Your task to perform on an android device: turn off improve location accuracy Image 0: 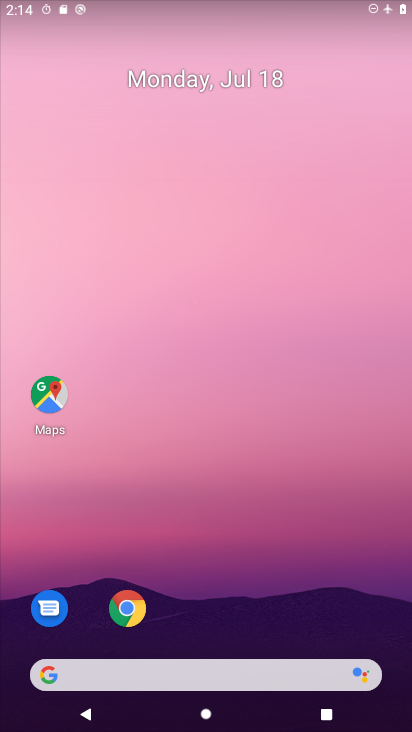
Step 0: drag from (222, 510) to (180, 160)
Your task to perform on an android device: turn off improve location accuracy Image 1: 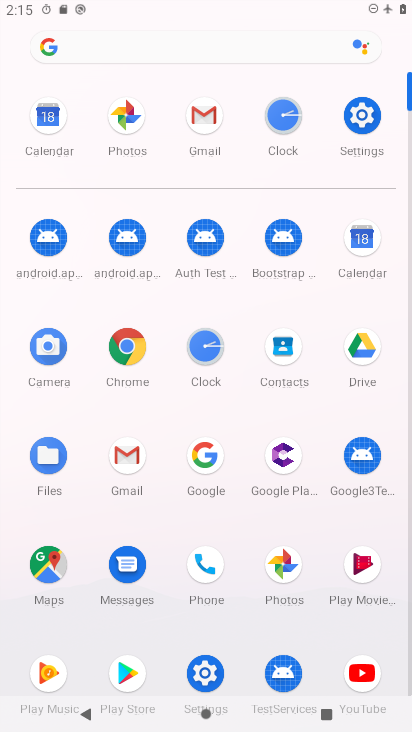
Step 1: click (365, 116)
Your task to perform on an android device: turn off improve location accuracy Image 2: 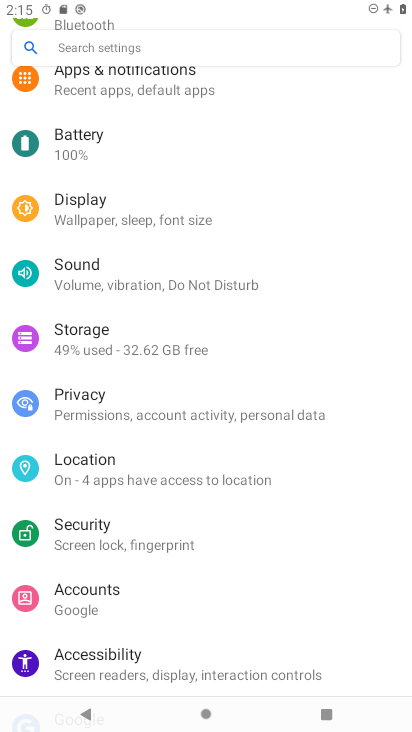
Step 2: click (78, 464)
Your task to perform on an android device: turn off improve location accuracy Image 3: 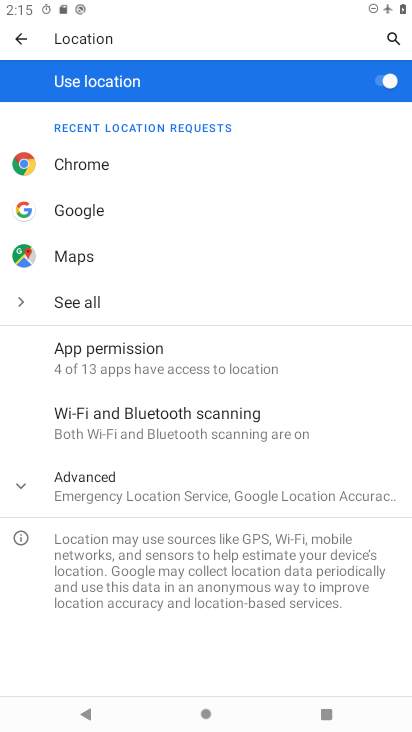
Step 3: click (109, 487)
Your task to perform on an android device: turn off improve location accuracy Image 4: 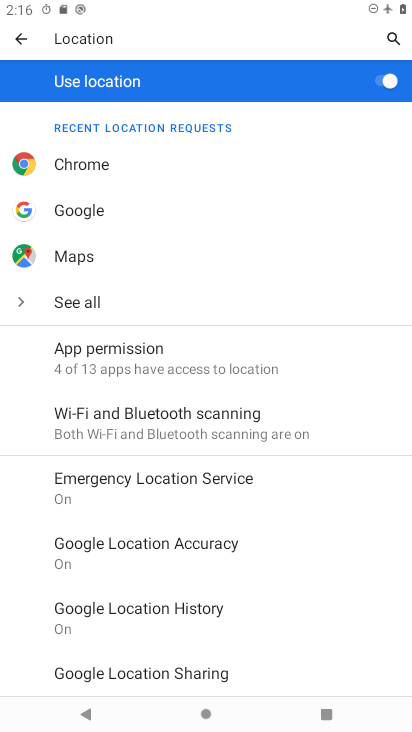
Step 4: click (176, 544)
Your task to perform on an android device: turn off improve location accuracy Image 5: 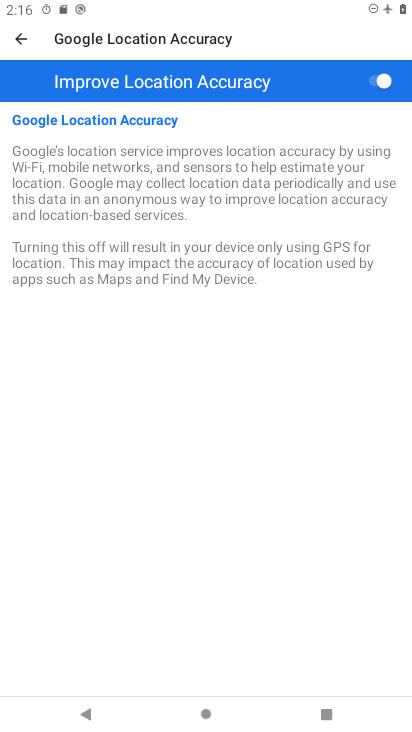
Step 5: click (373, 78)
Your task to perform on an android device: turn off improve location accuracy Image 6: 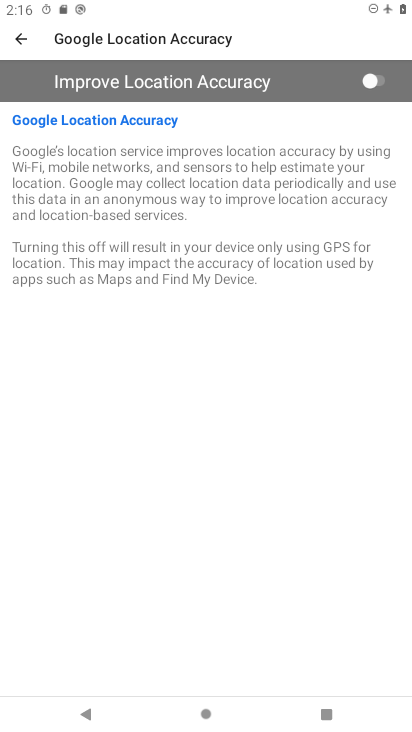
Step 6: task complete